Your task to perform on an android device: clear all cookies in the chrome app Image 0: 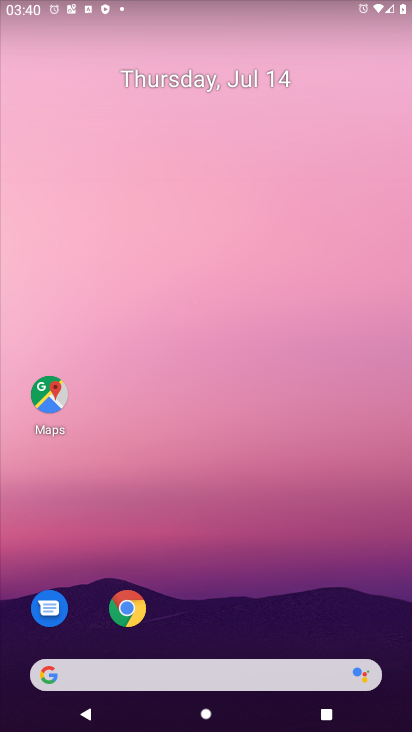
Step 0: click (127, 610)
Your task to perform on an android device: clear all cookies in the chrome app Image 1: 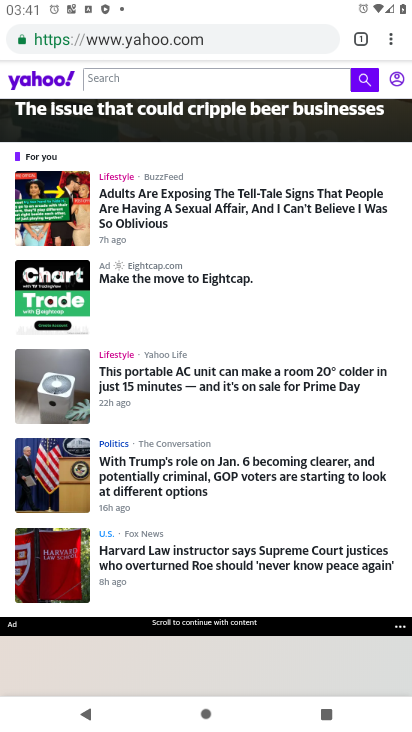
Step 1: click (389, 40)
Your task to perform on an android device: clear all cookies in the chrome app Image 2: 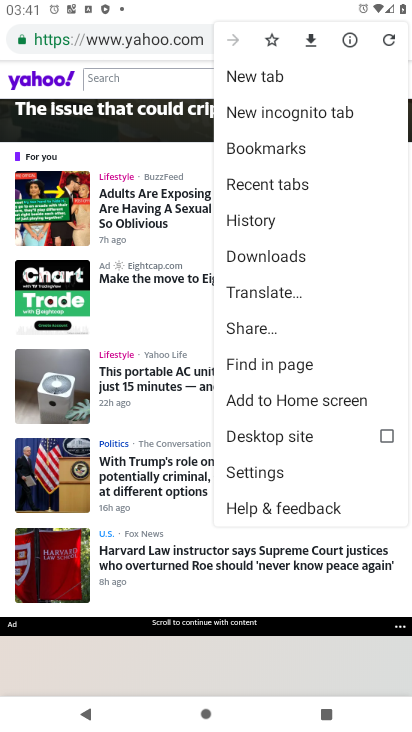
Step 2: click (258, 221)
Your task to perform on an android device: clear all cookies in the chrome app Image 3: 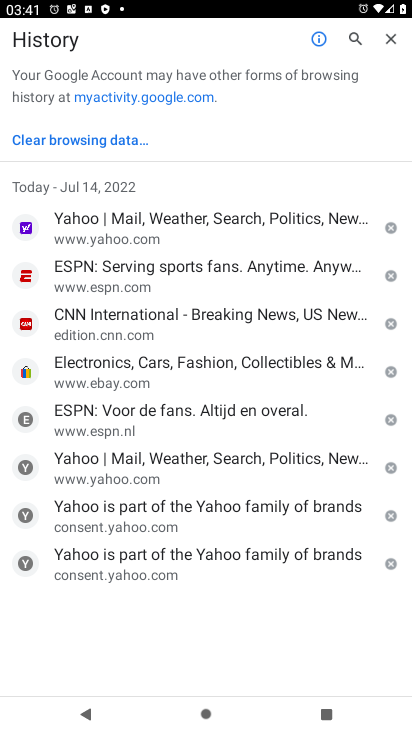
Step 3: click (74, 141)
Your task to perform on an android device: clear all cookies in the chrome app Image 4: 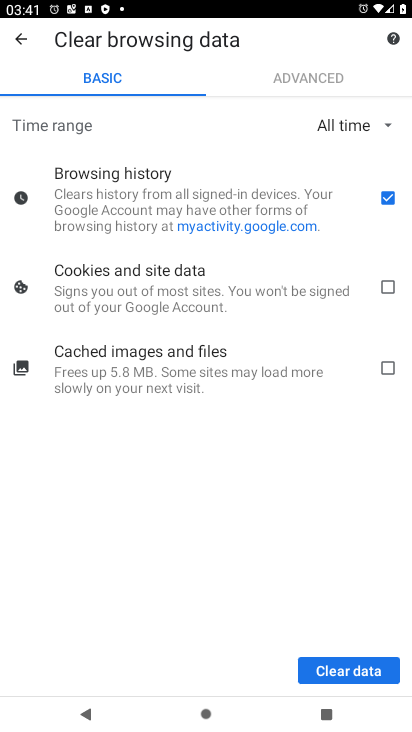
Step 4: click (389, 288)
Your task to perform on an android device: clear all cookies in the chrome app Image 5: 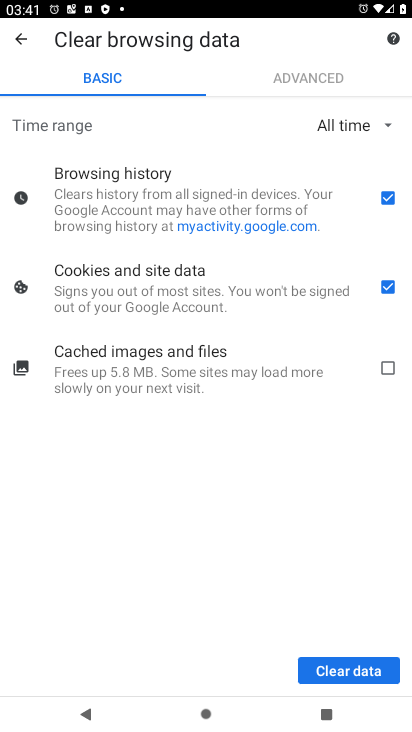
Step 5: click (383, 195)
Your task to perform on an android device: clear all cookies in the chrome app Image 6: 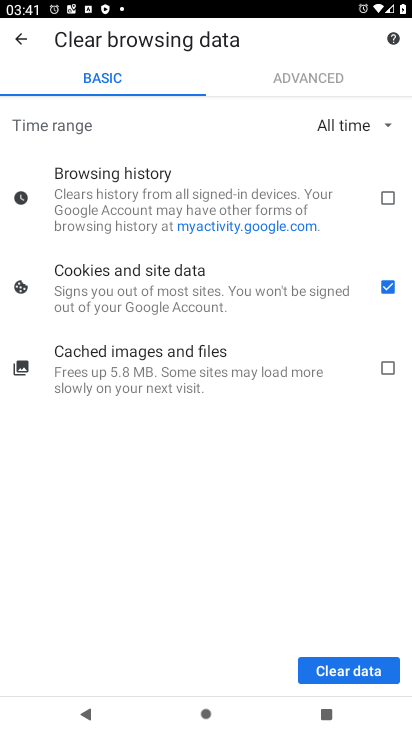
Step 6: click (340, 664)
Your task to perform on an android device: clear all cookies in the chrome app Image 7: 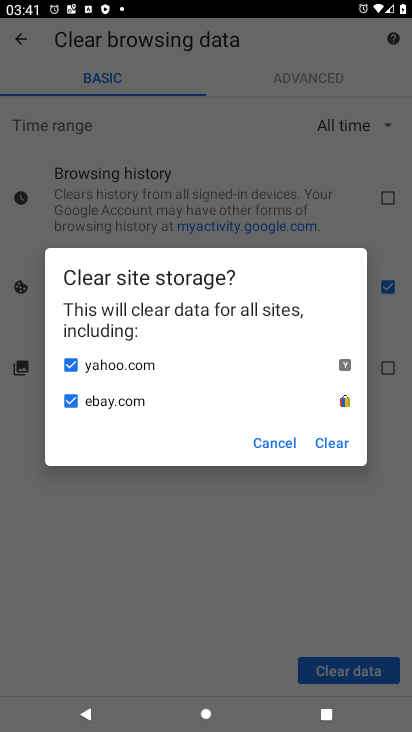
Step 7: click (335, 444)
Your task to perform on an android device: clear all cookies in the chrome app Image 8: 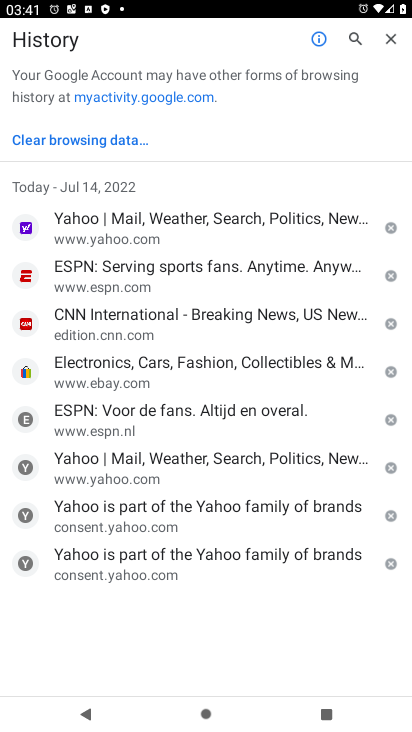
Step 8: task complete